Your task to perform on an android device: toggle show notifications on the lock screen Image 0: 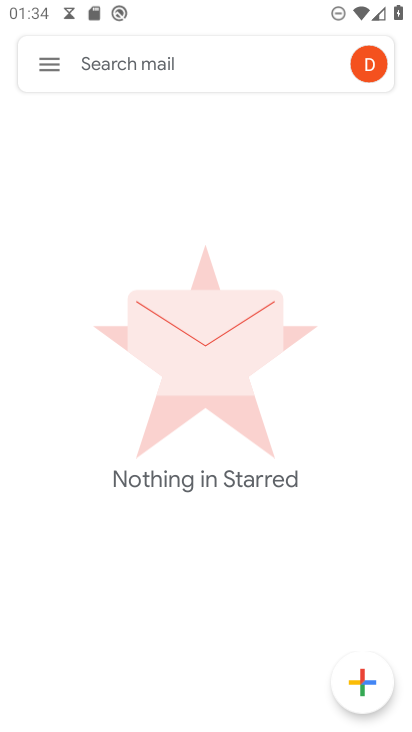
Step 0: press home button
Your task to perform on an android device: toggle show notifications on the lock screen Image 1: 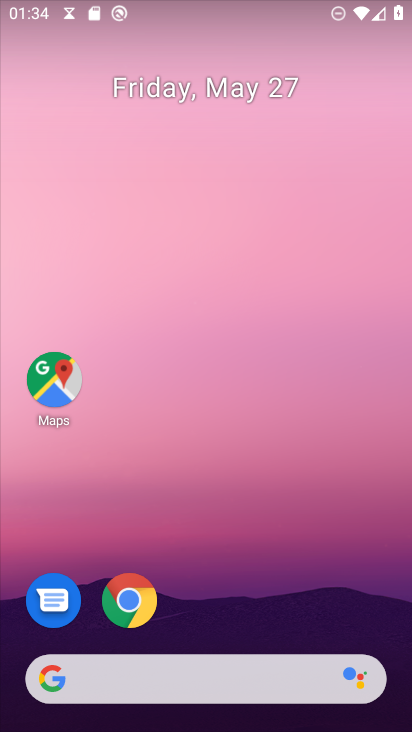
Step 1: drag from (240, 585) to (177, 238)
Your task to perform on an android device: toggle show notifications on the lock screen Image 2: 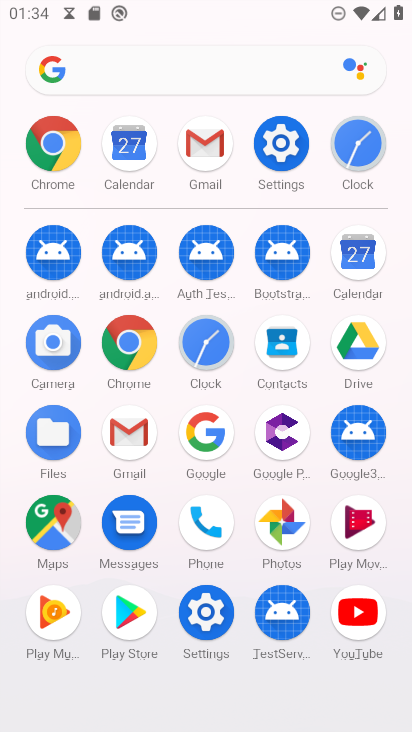
Step 2: click (282, 142)
Your task to perform on an android device: toggle show notifications on the lock screen Image 3: 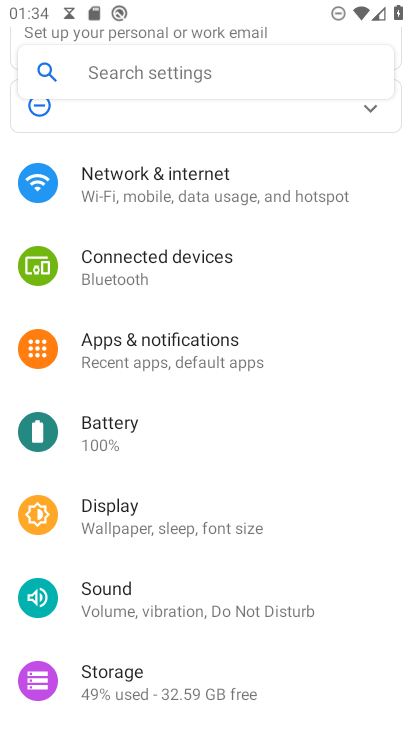
Step 3: click (154, 519)
Your task to perform on an android device: toggle show notifications on the lock screen Image 4: 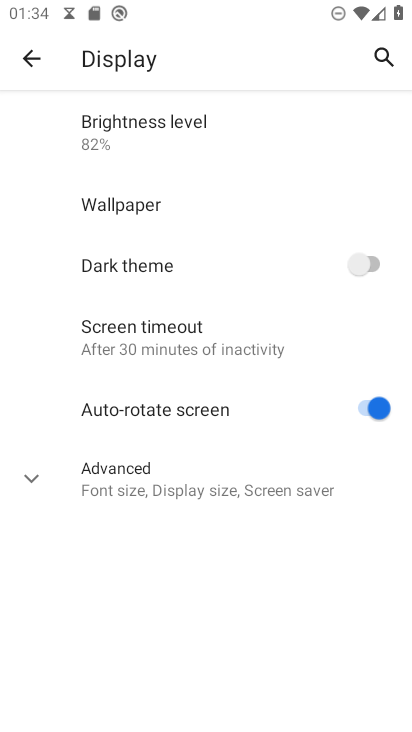
Step 4: click (148, 491)
Your task to perform on an android device: toggle show notifications on the lock screen Image 5: 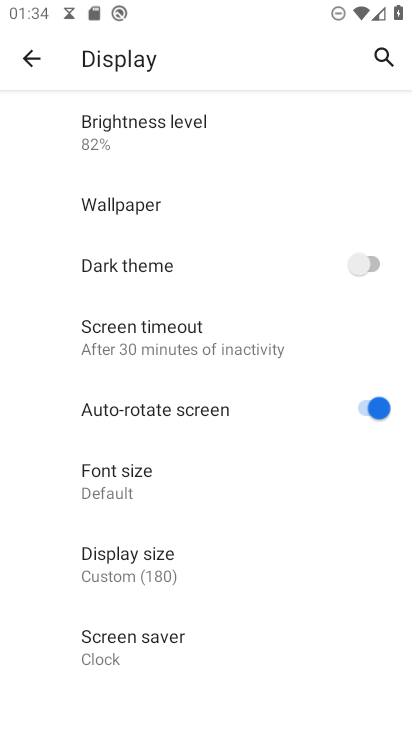
Step 5: press back button
Your task to perform on an android device: toggle show notifications on the lock screen Image 6: 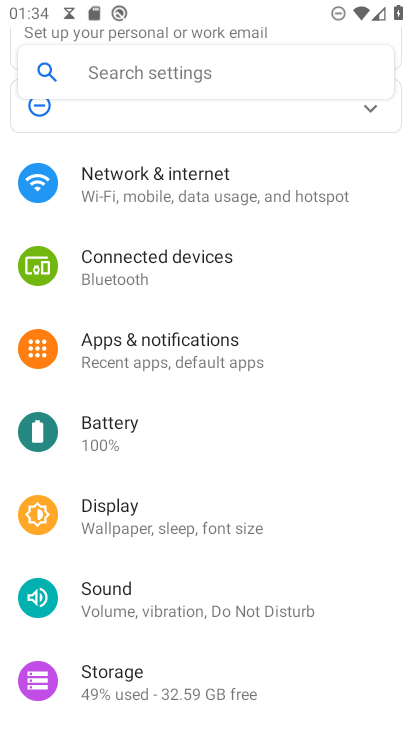
Step 6: drag from (224, 588) to (188, 255)
Your task to perform on an android device: toggle show notifications on the lock screen Image 7: 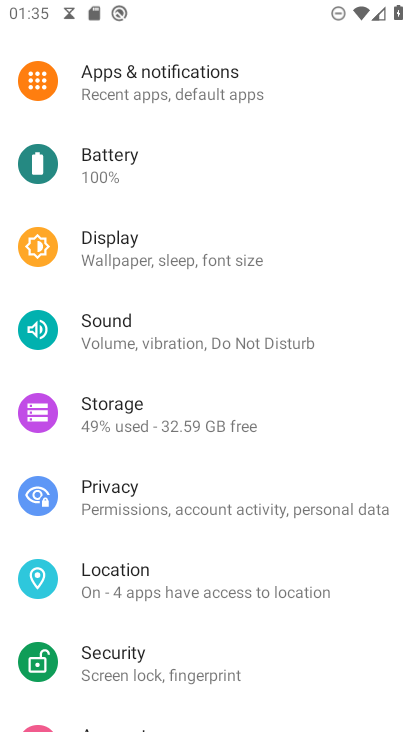
Step 7: drag from (199, 599) to (195, 335)
Your task to perform on an android device: toggle show notifications on the lock screen Image 8: 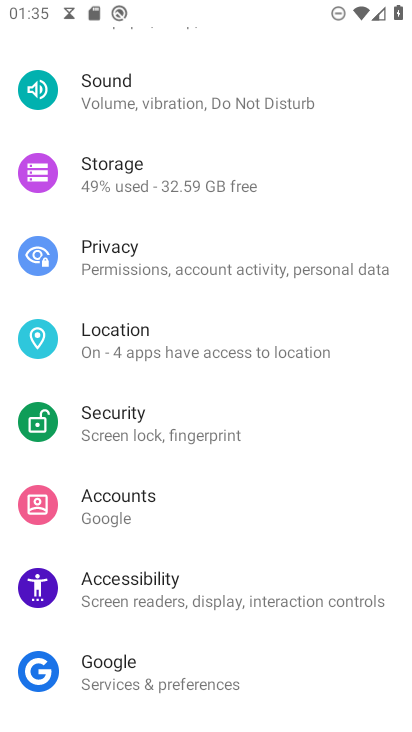
Step 8: drag from (154, 470) to (140, 250)
Your task to perform on an android device: toggle show notifications on the lock screen Image 9: 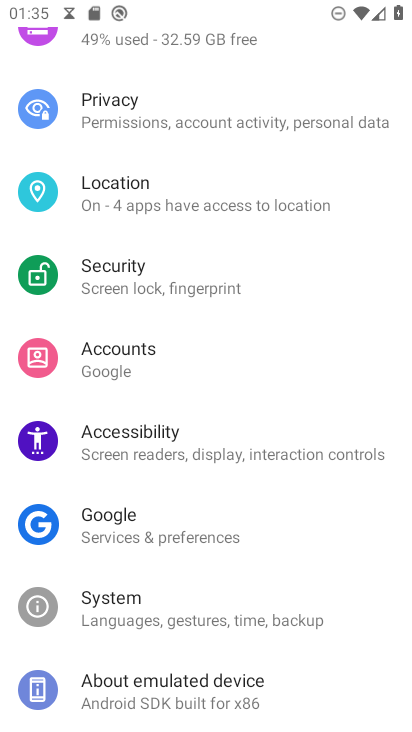
Step 9: drag from (115, 215) to (181, 632)
Your task to perform on an android device: toggle show notifications on the lock screen Image 10: 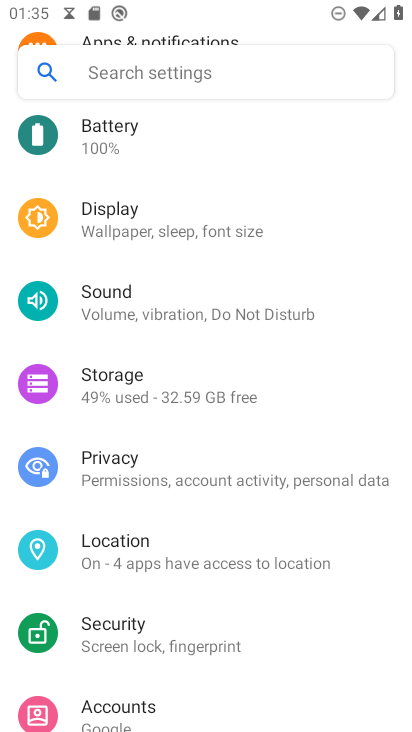
Step 10: drag from (137, 183) to (204, 603)
Your task to perform on an android device: toggle show notifications on the lock screen Image 11: 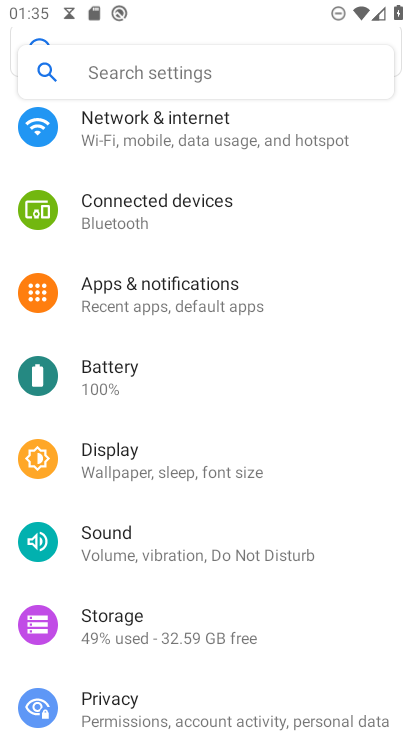
Step 11: click (134, 291)
Your task to perform on an android device: toggle show notifications on the lock screen Image 12: 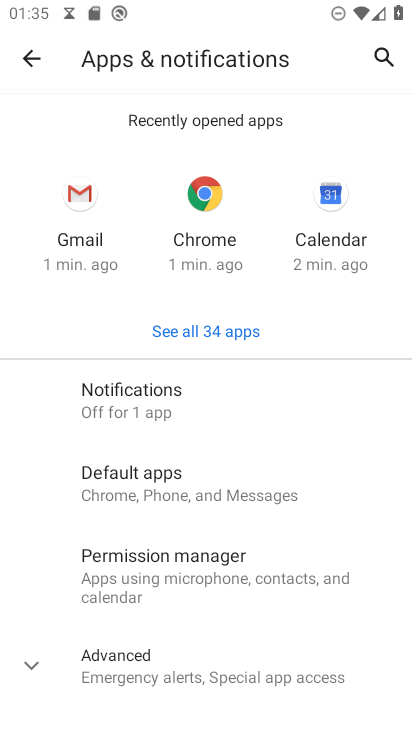
Step 12: click (140, 393)
Your task to perform on an android device: toggle show notifications on the lock screen Image 13: 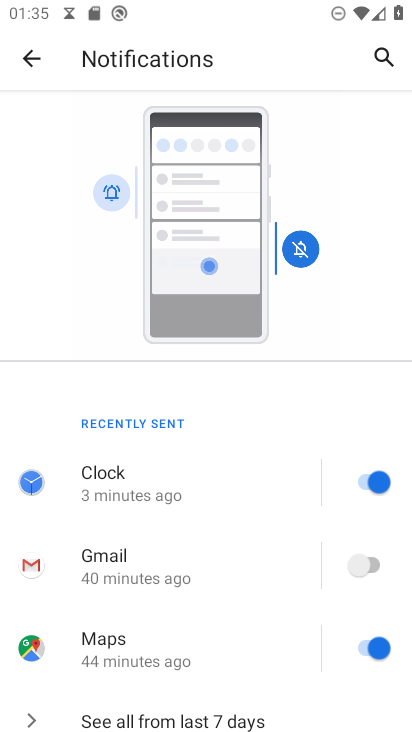
Step 13: drag from (208, 618) to (178, 154)
Your task to perform on an android device: toggle show notifications on the lock screen Image 14: 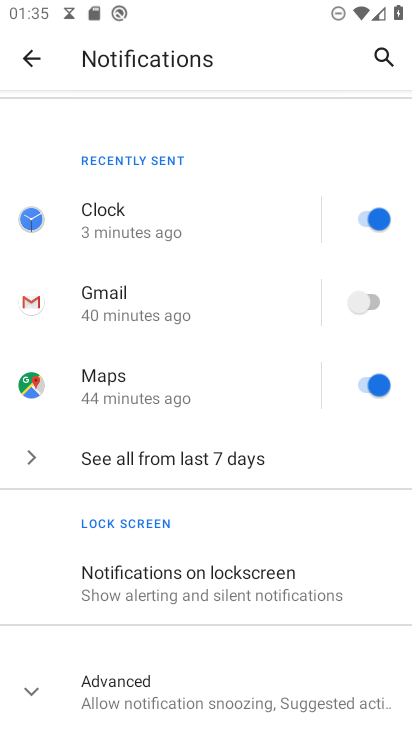
Step 14: click (183, 568)
Your task to perform on an android device: toggle show notifications on the lock screen Image 15: 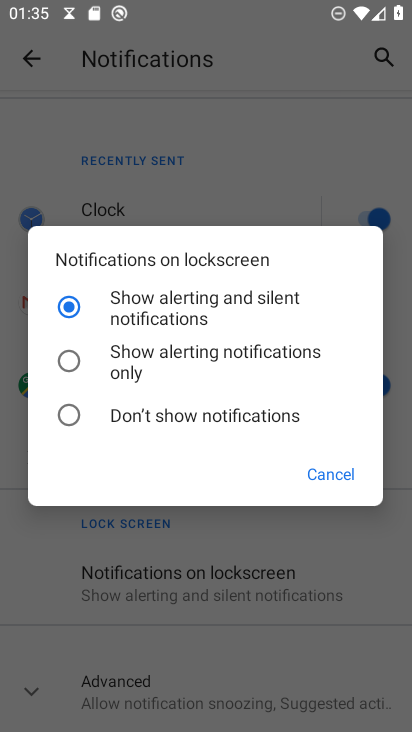
Step 15: click (63, 360)
Your task to perform on an android device: toggle show notifications on the lock screen Image 16: 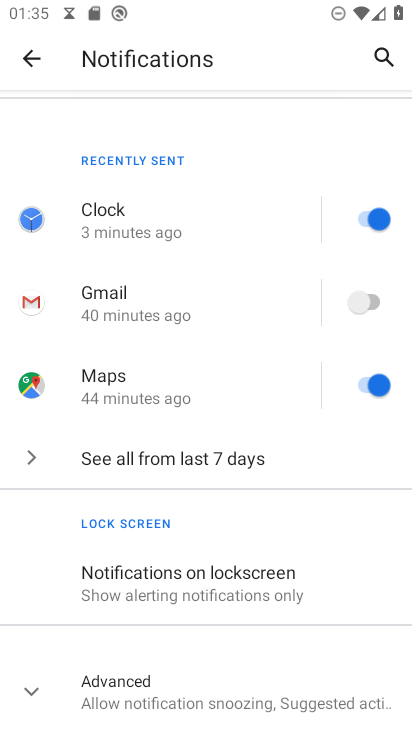
Step 16: task complete